Your task to perform on an android device: Open eBay Image 0: 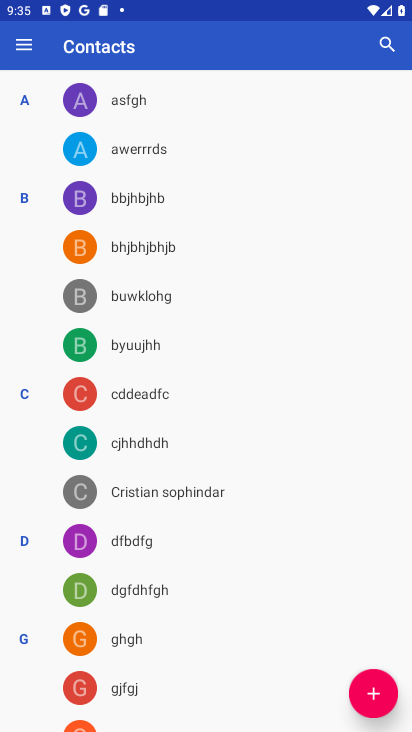
Step 0: press home button
Your task to perform on an android device: Open eBay Image 1: 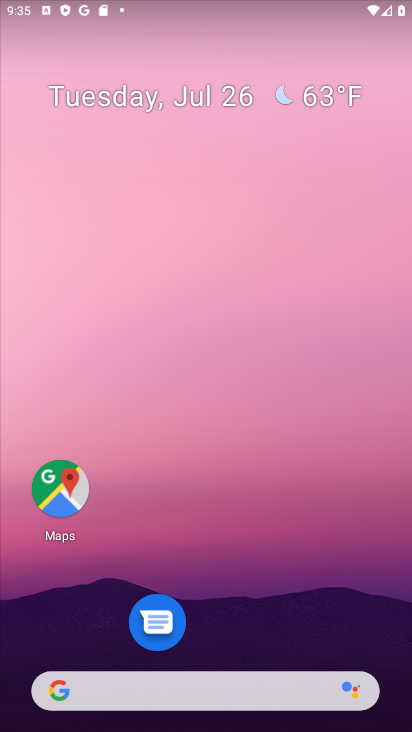
Step 1: drag from (338, 705) to (1, 140)
Your task to perform on an android device: Open eBay Image 2: 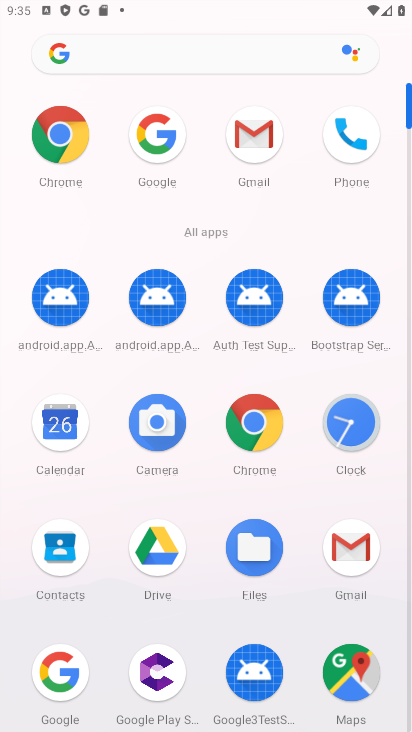
Step 2: click (56, 159)
Your task to perform on an android device: Open eBay Image 3: 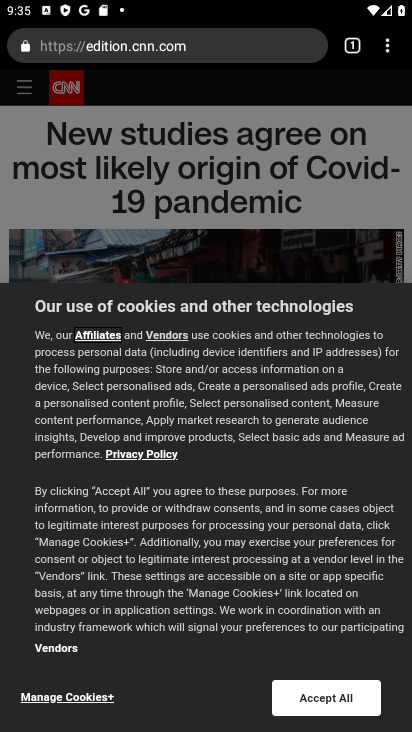
Step 3: press back button
Your task to perform on an android device: Open eBay Image 4: 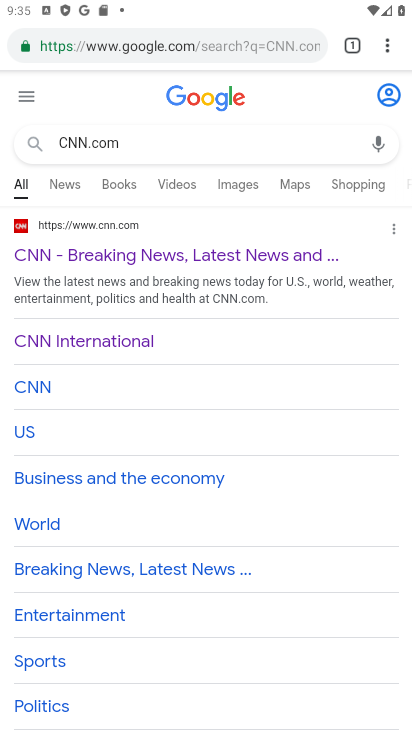
Step 4: press back button
Your task to perform on an android device: Open eBay Image 5: 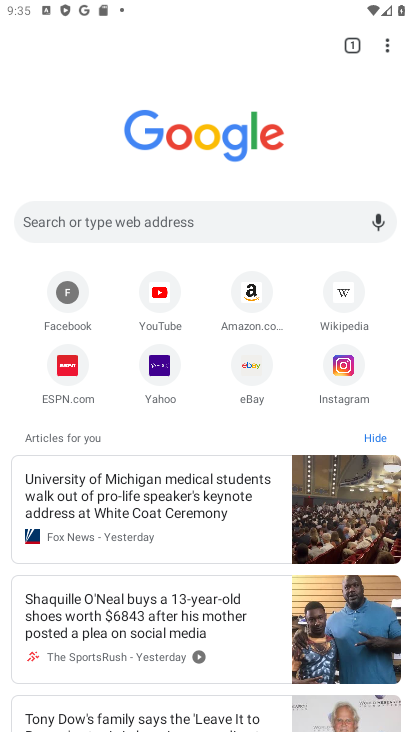
Step 5: click (258, 363)
Your task to perform on an android device: Open eBay Image 6: 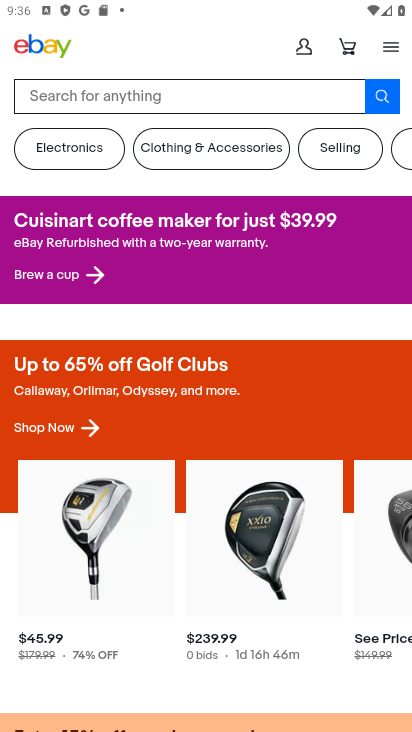
Step 6: task complete